Your task to perform on an android device: Search for seafood restaurants on Google Maps Image 0: 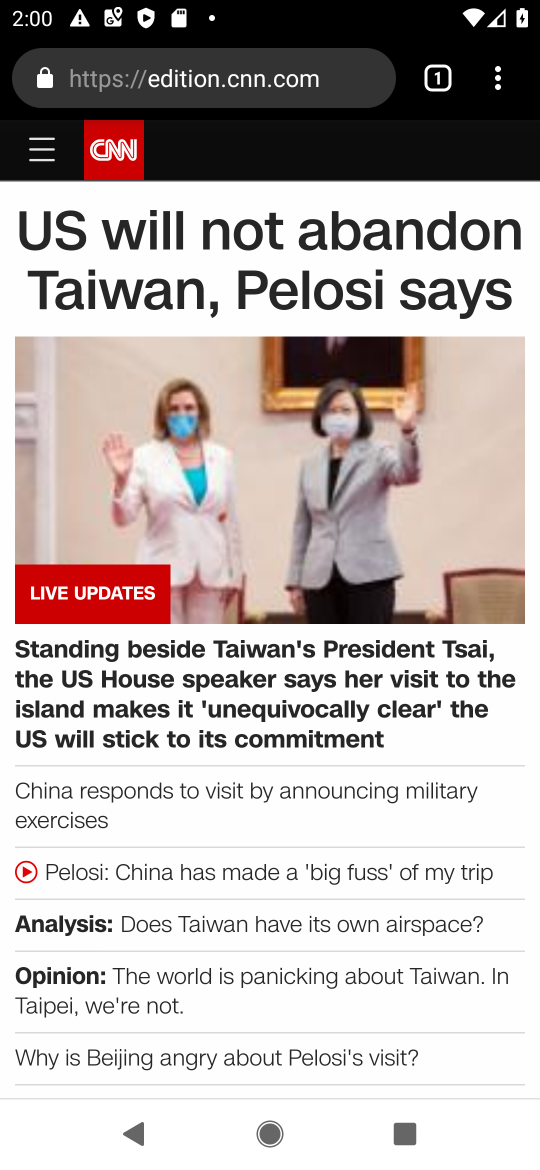
Step 0: press home button
Your task to perform on an android device: Search for seafood restaurants on Google Maps Image 1: 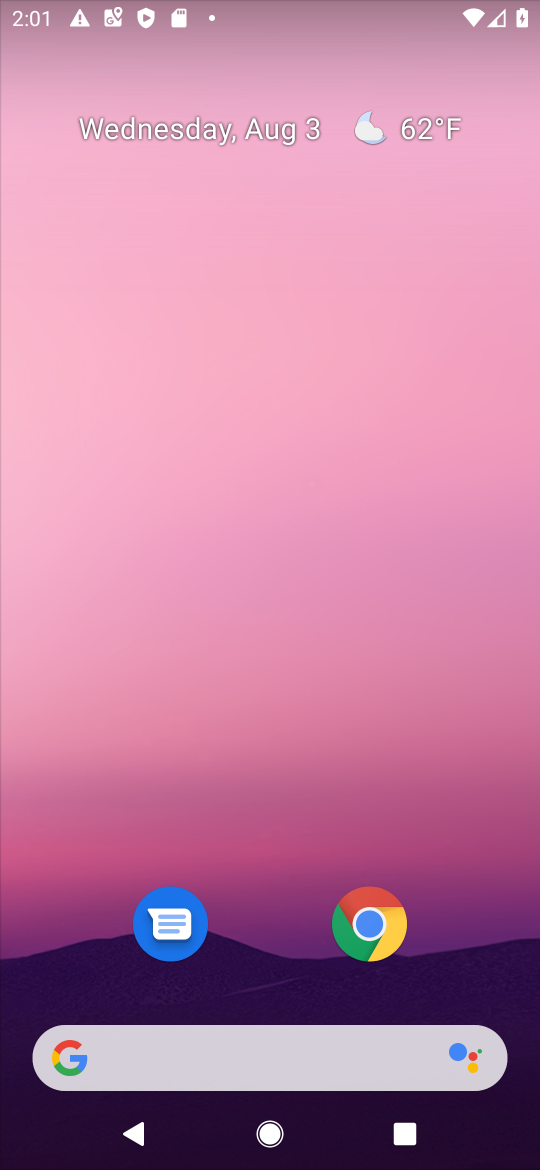
Step 1: drag from (268, 976) to (356, 251)
Your task to perform on an android device: Search for seafood restaurants on Google Maps Image 2: 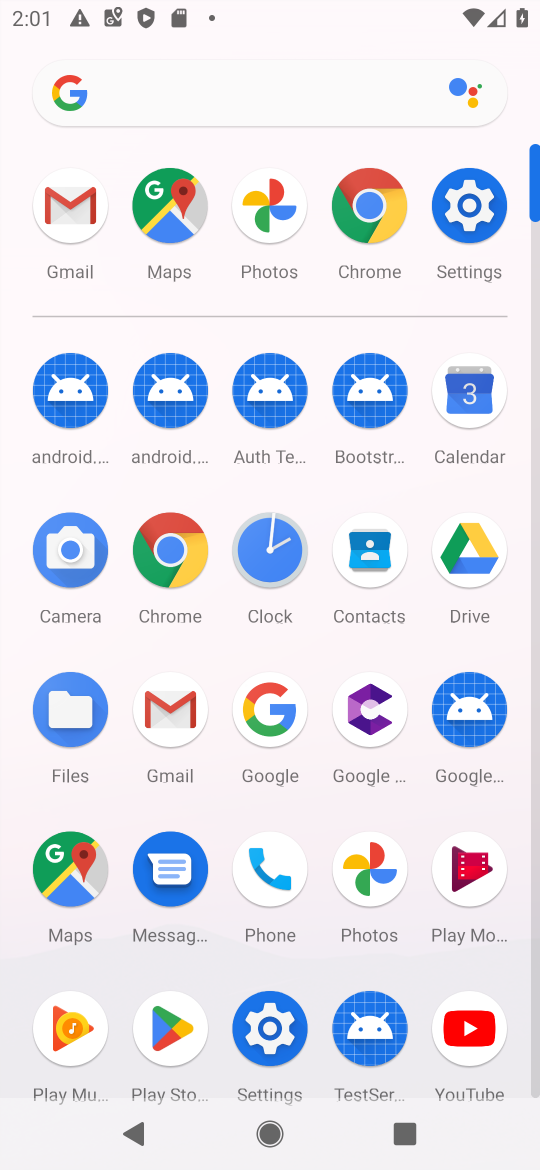
Step 2: click (172, 195)
Your task to perform on an android device: Search for seafood restaurants on Google Maps Image 3: 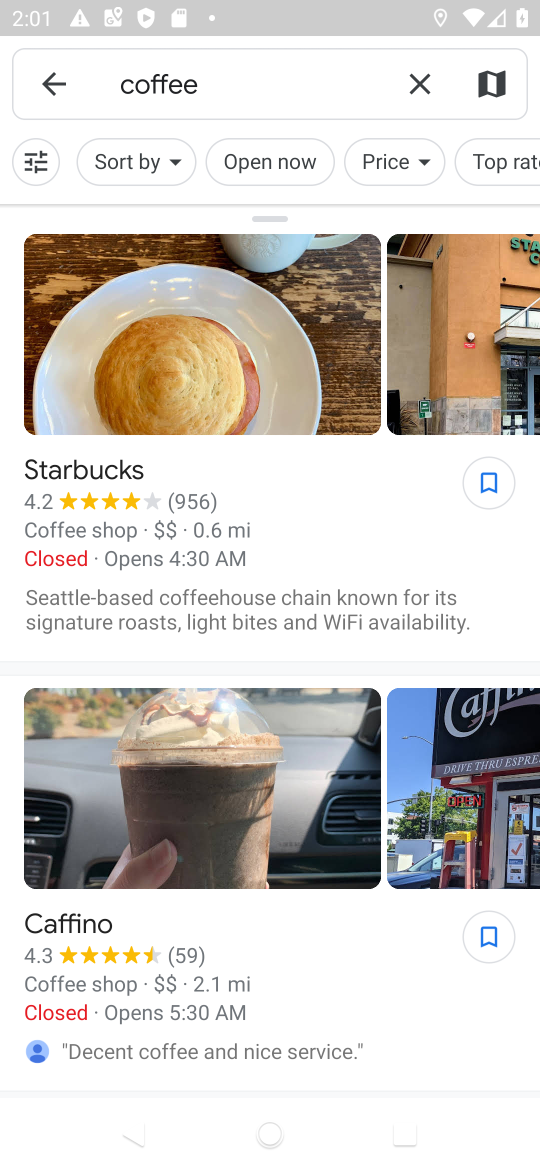
Step 3: click (422, 79)
Your task to perform on an android device: Search for seafood restaurants on Google Maps Image 4: 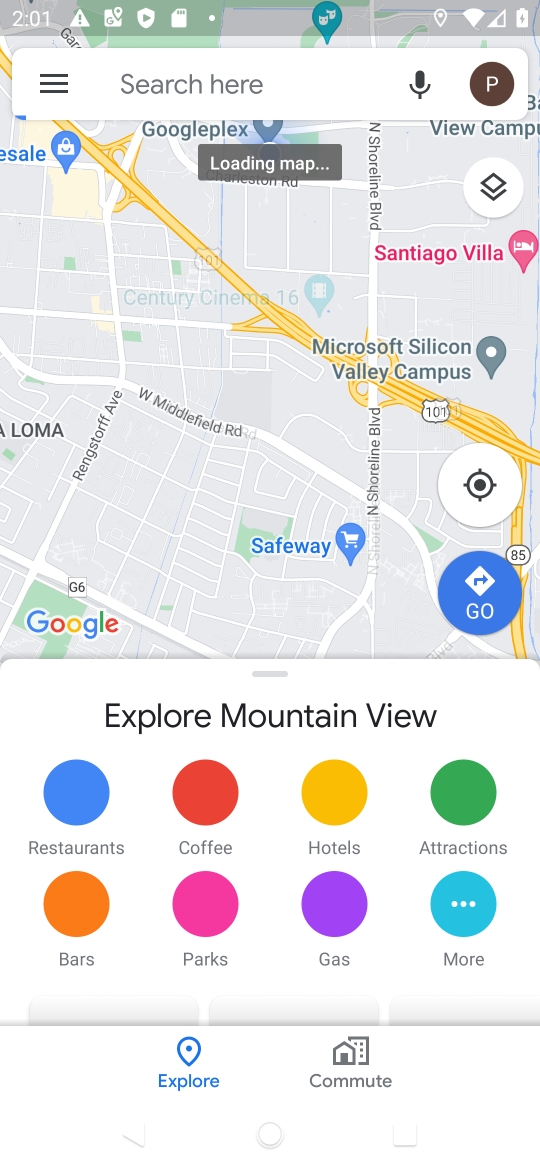
Step 4: click (222, 89)
Your task to perform on an android device: Search for seafood restaurants on Google Maps Image 5: 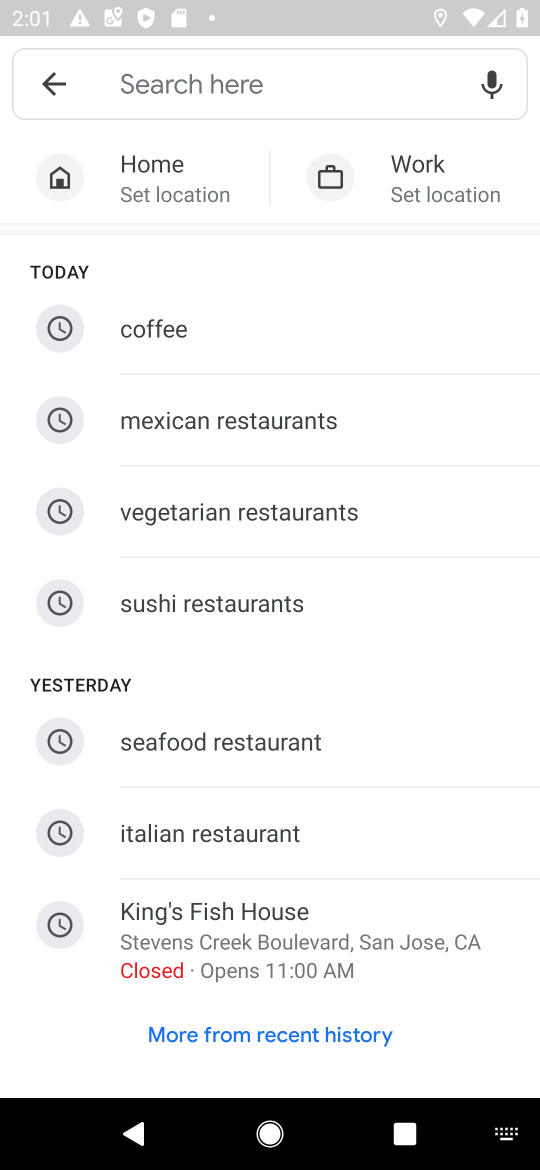
Step 5: type "seafood restaurants"
Your task to perform on an android device: Search for seafood restaurants on Google Maps Image 6: 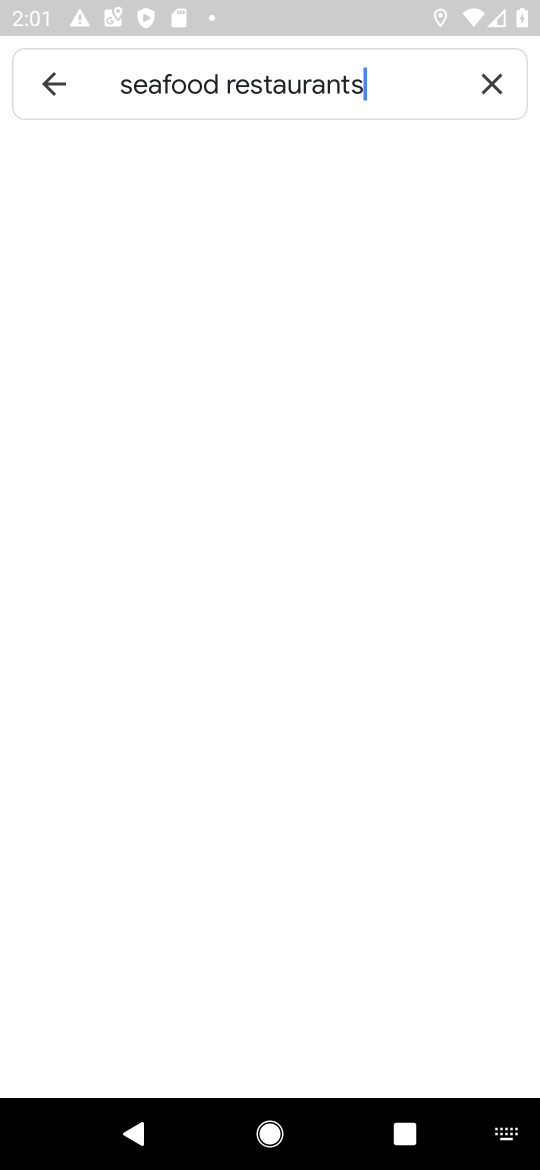
Step 6: type ""
Your task to perform on an android device: Search for seafood restaurants on Google Maps Image 7: 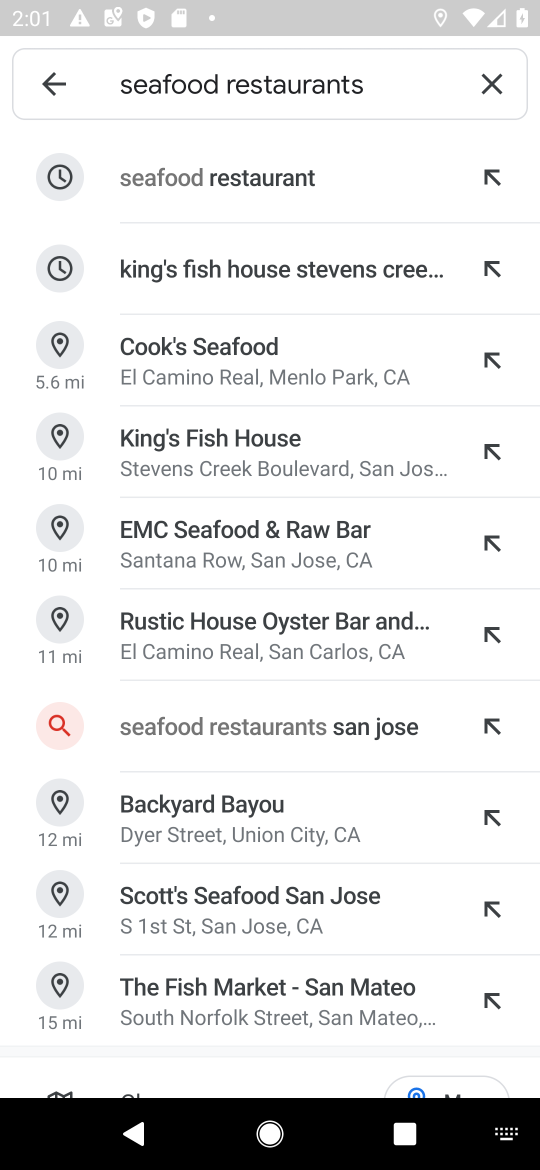
Step 7: click (252, 162)
Your task to perform on an android device: Search for seafood restaurants on Google Maps Image 8: 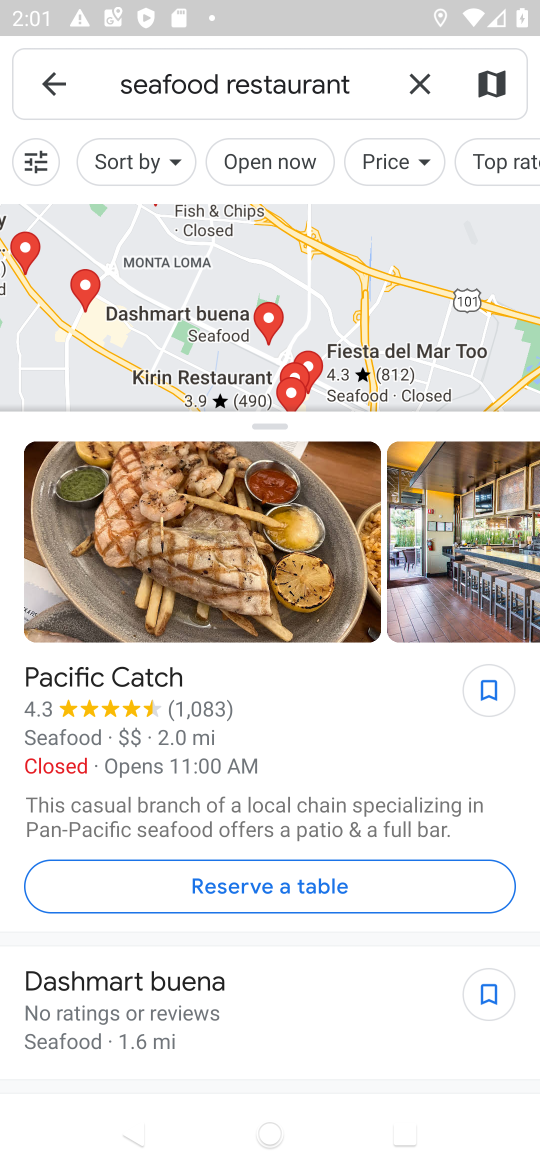
Step 8: task complete